Your task to perform on an android device: check the backup settings in the google photos Image 0: 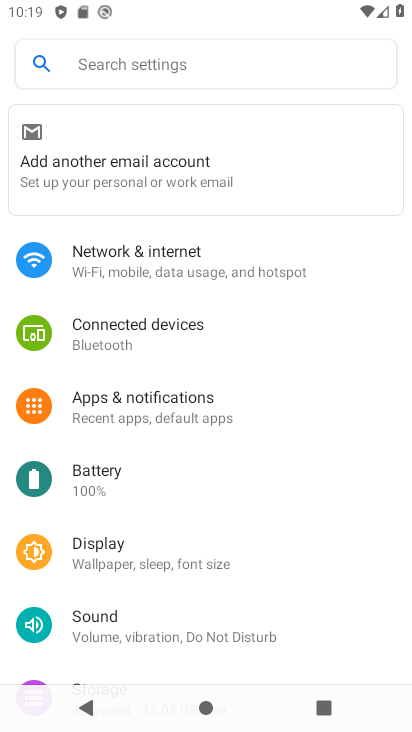
Step 0: press home button
Your task to perform on an android device: check the backup settings in the google photos Image 1: 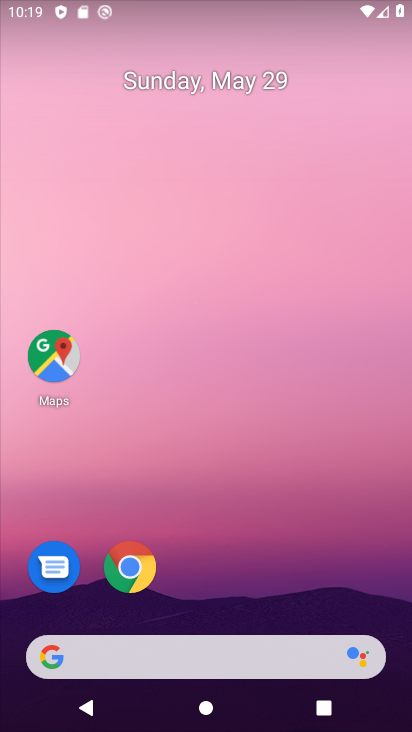
Step 1: drag from (150, 647) to (297, 118)
Your task to perform on an android device: check the backup settings in the google photos Image 2: 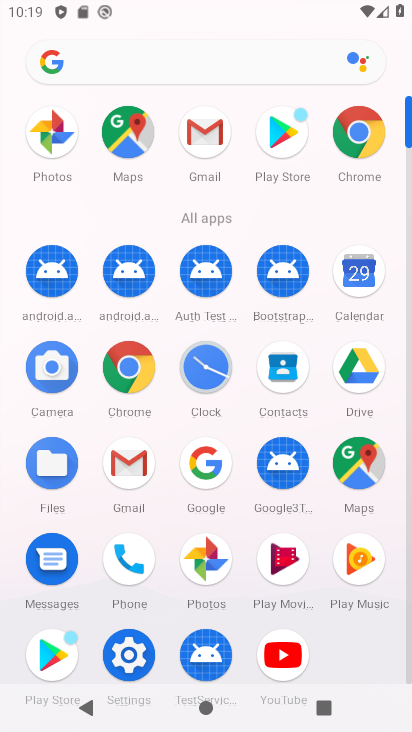
Step 2: click (225, 558)
Your task to perform on an android device: check the backup settings in the google photos Image 3: 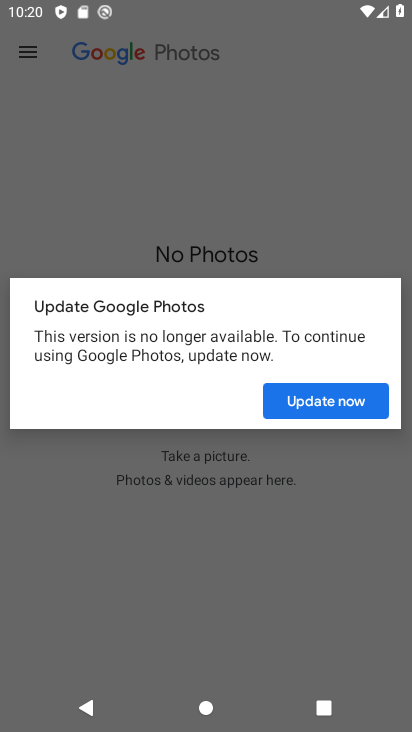
Step 3: click (321, 406)
Your task to perform on an android device: check the backup settings in the google photos Image 4: 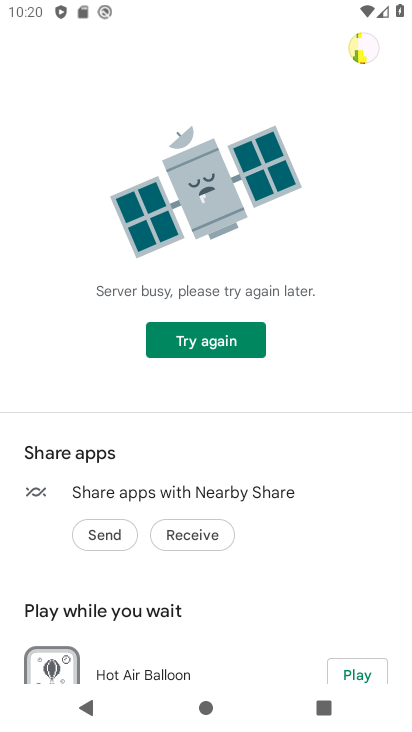
Step 4: task complete